Your task to perform on an android device: turn on the 12-hour format for clock Image 0: 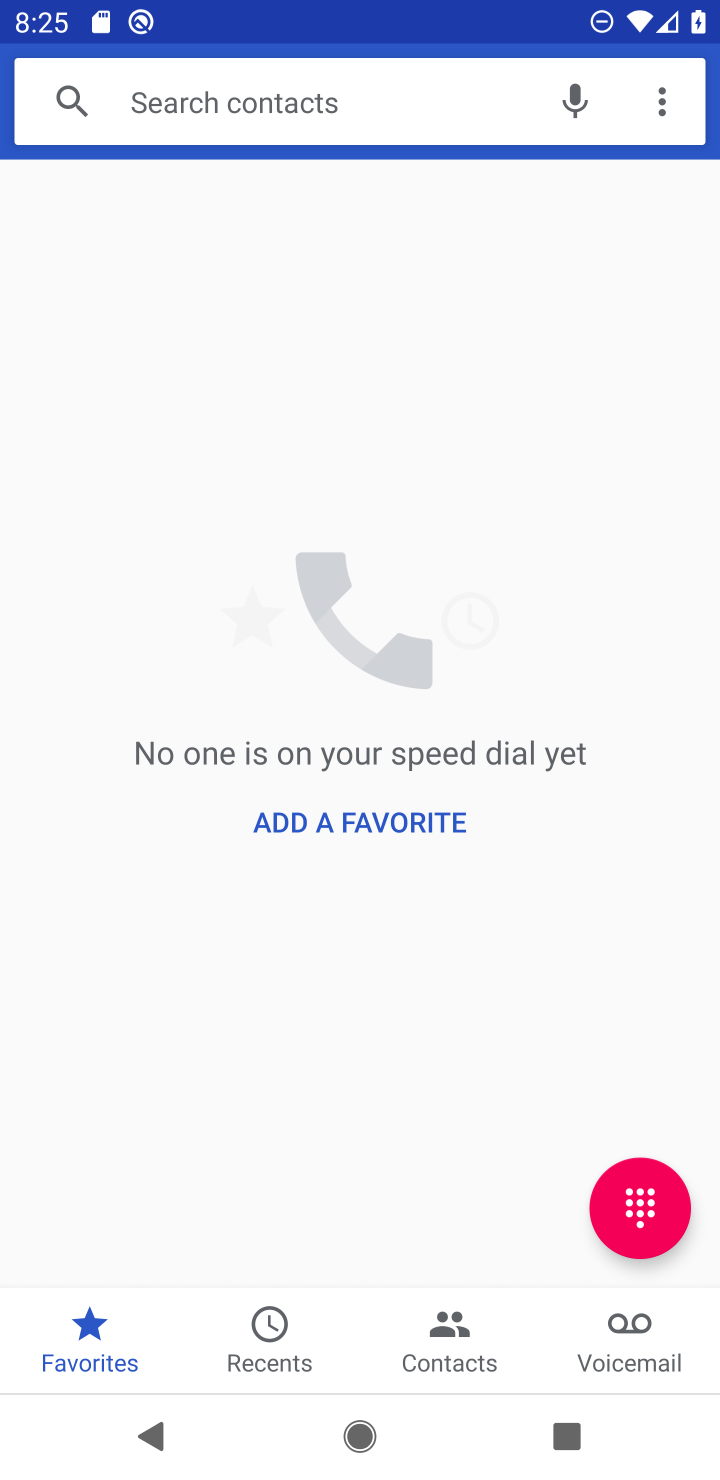
Step 0: press home button
Your task to perform on an android device: turn on the 12-hour format for clock Image 1: 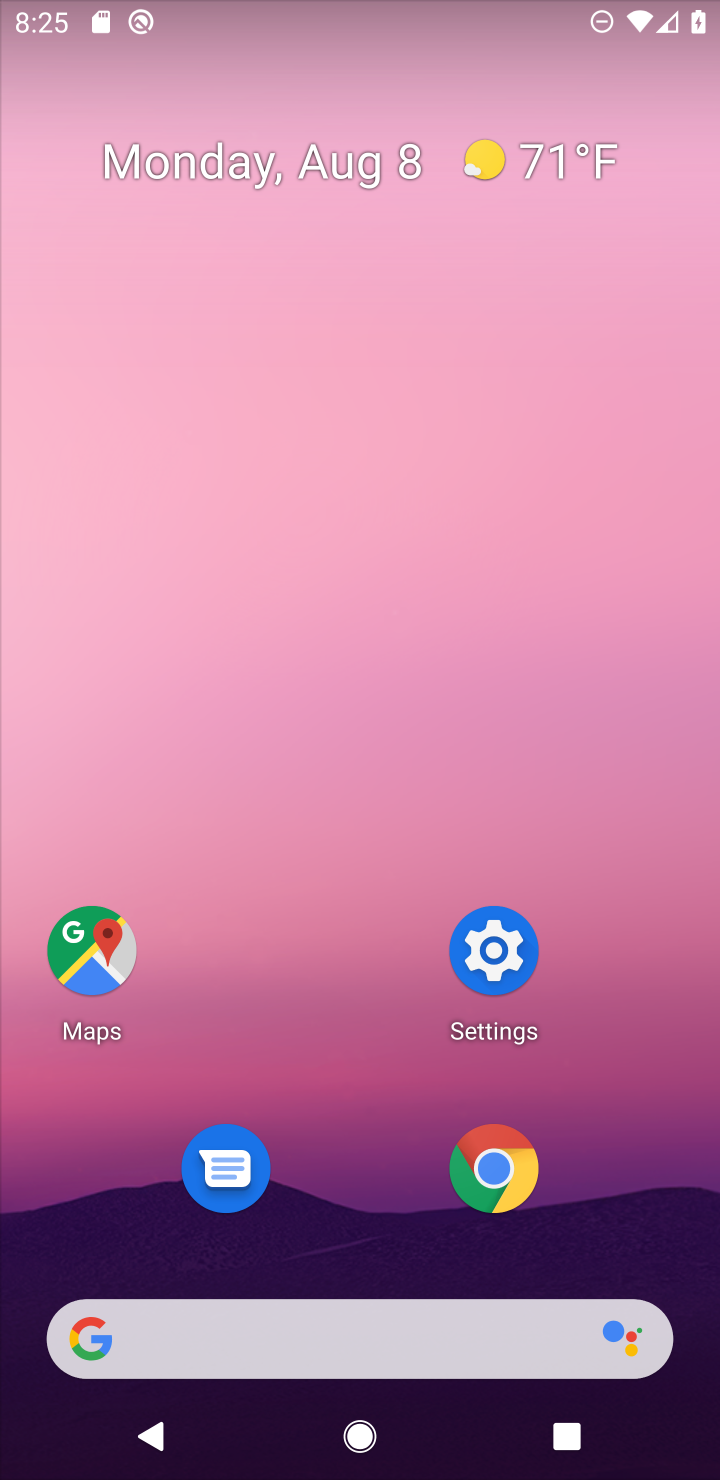
Step 1: drag from (388, 1316) to (560, 353)
Your task to perform on an android device: turn on the 12-hour format for clock Image 2: 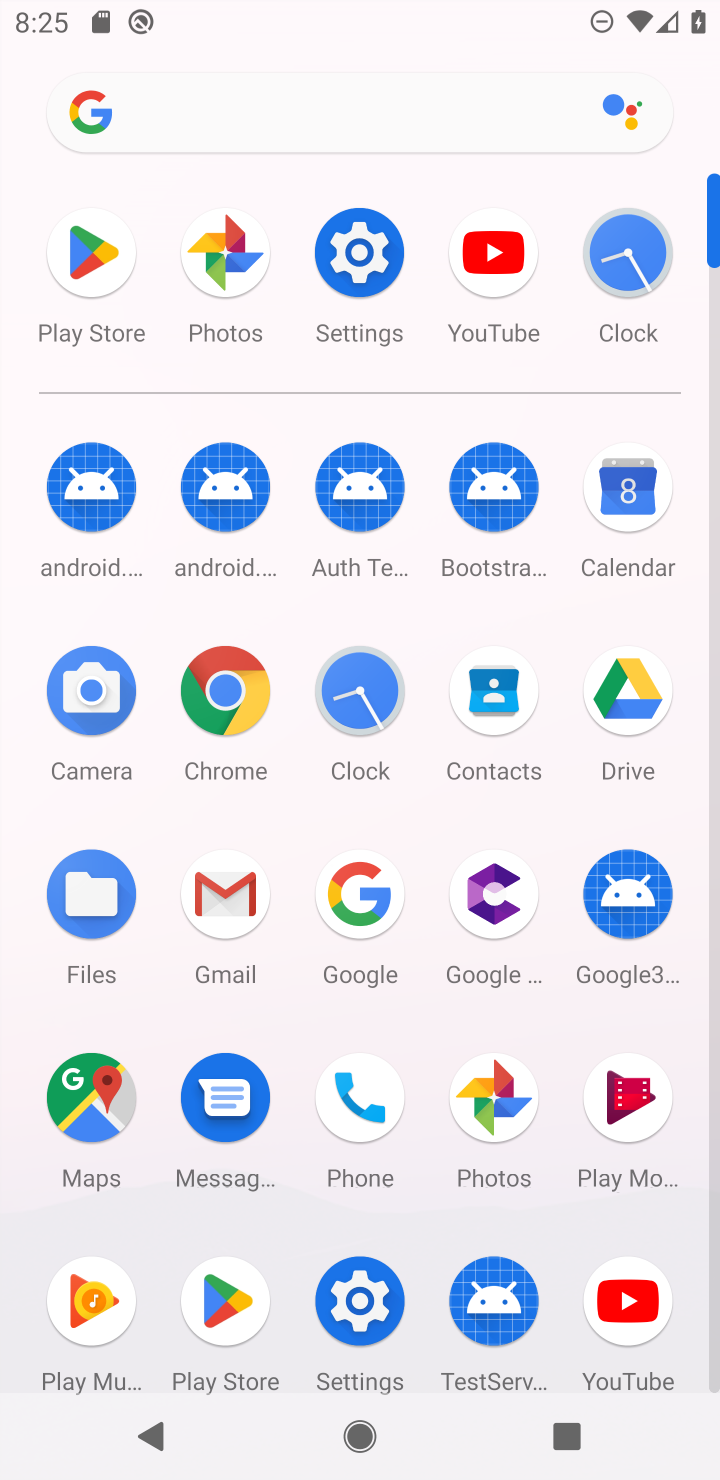
Step 2: click (619, 256)
Your task to perform on an android device: turn on the 12-hour format for clock Image 3: 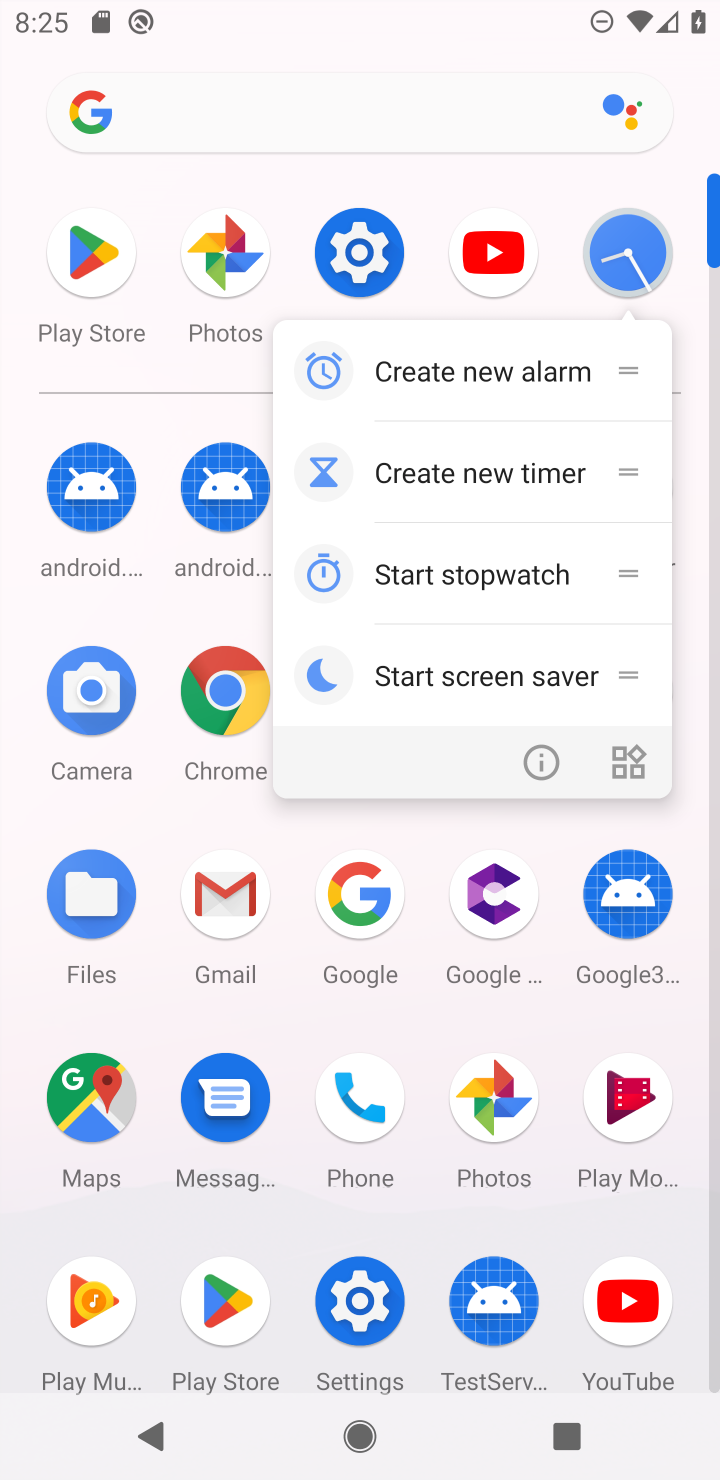
Step 3: click (619, 260)
Your task to perform on an android device: turn on the 12-hour format for clock Image 4: 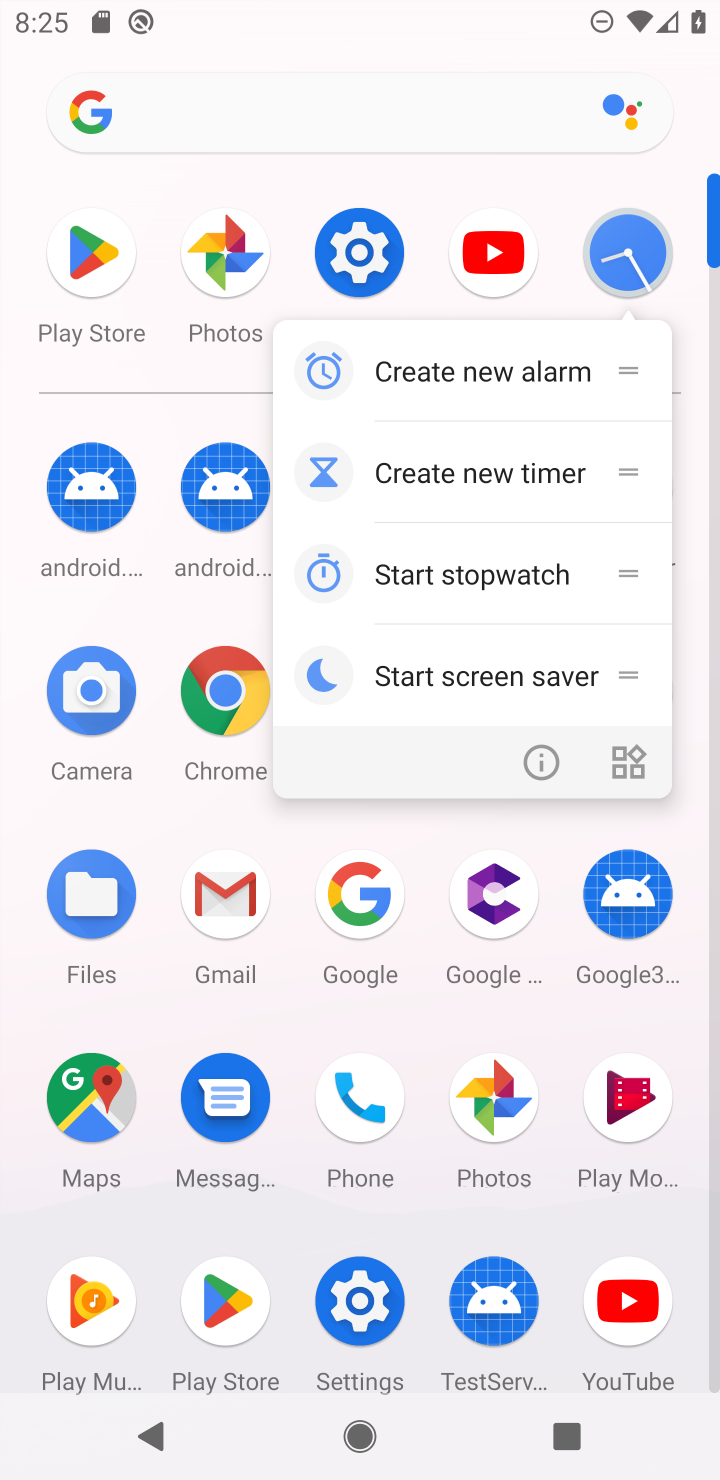
Step 4: drag from (652, 152) to (635, 220)
Your task to perform on an android device: turn on the 12-hour format for clock Image 5: 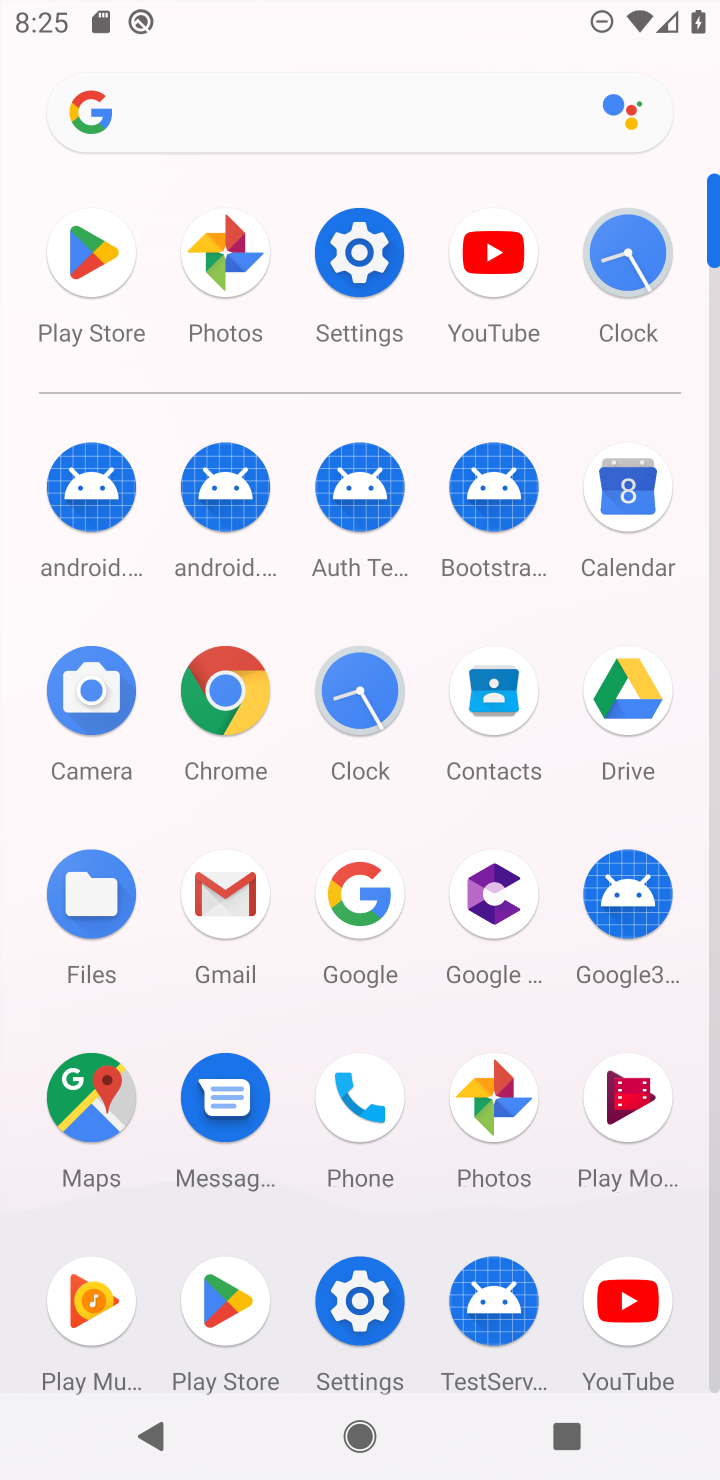
Step 5: click (635, 227)
Your task to perform on an android device: turn on the 12-hour format for clock Image 6: 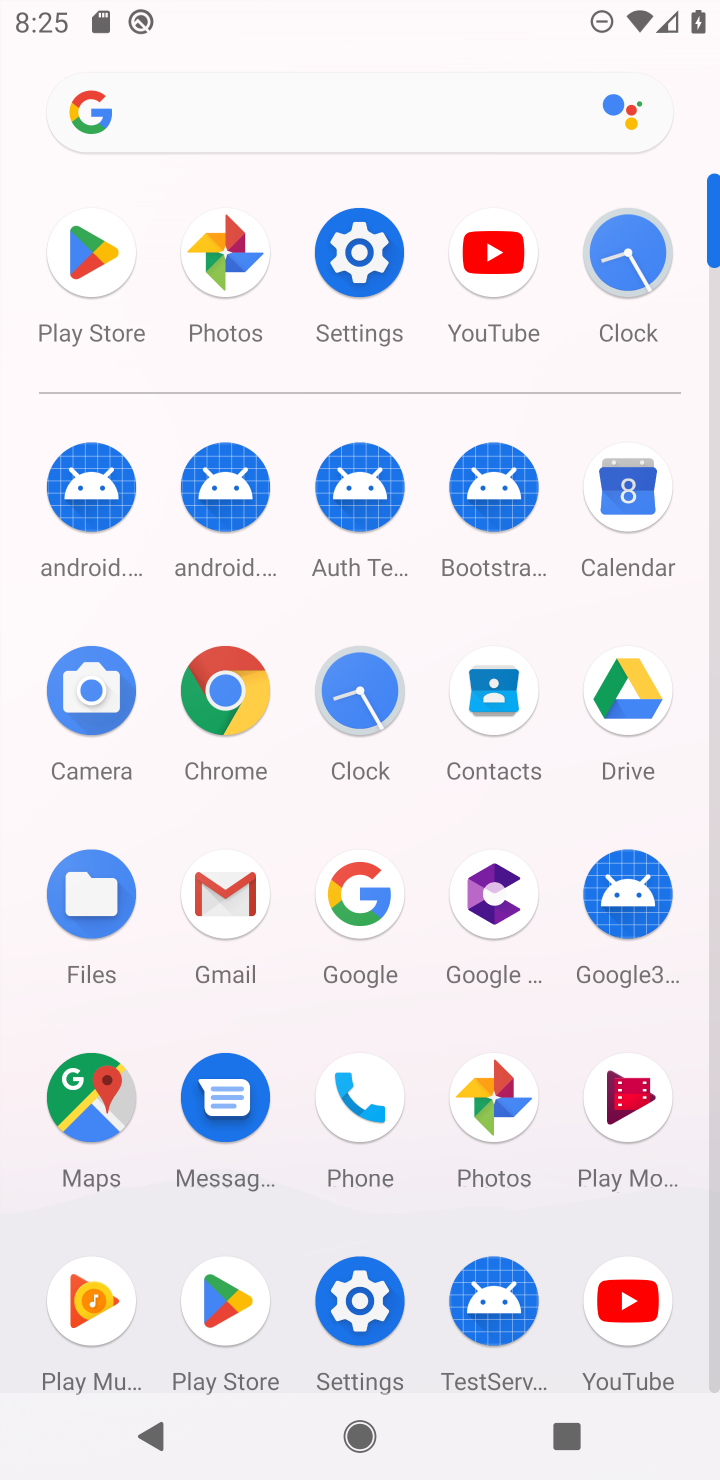
Step 6: click (635, 227)
Your task to perform on an android device: turn on the 12-hour format for clock Image 7: 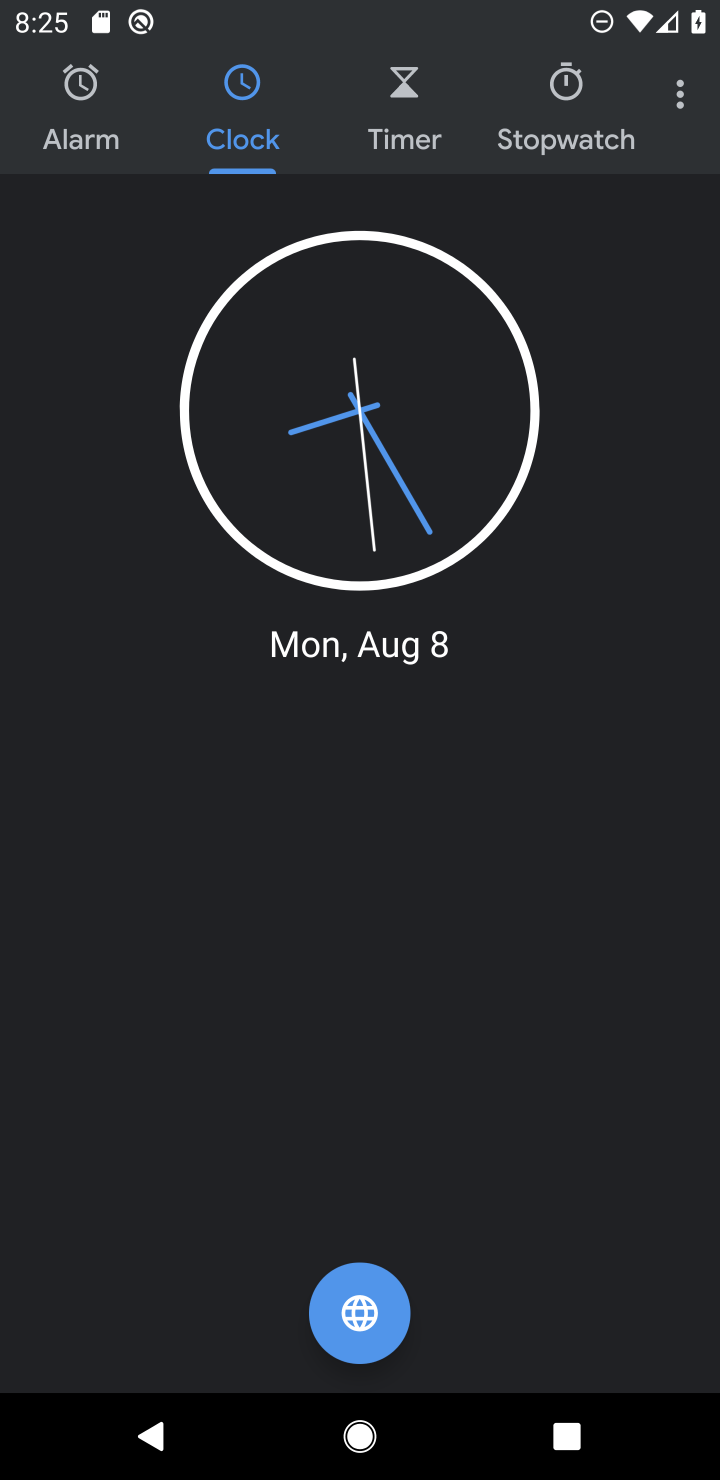
Step 7: click (667, 91)
Your task to perform on an android device: turn on the 12-hour format for clock Image 8: 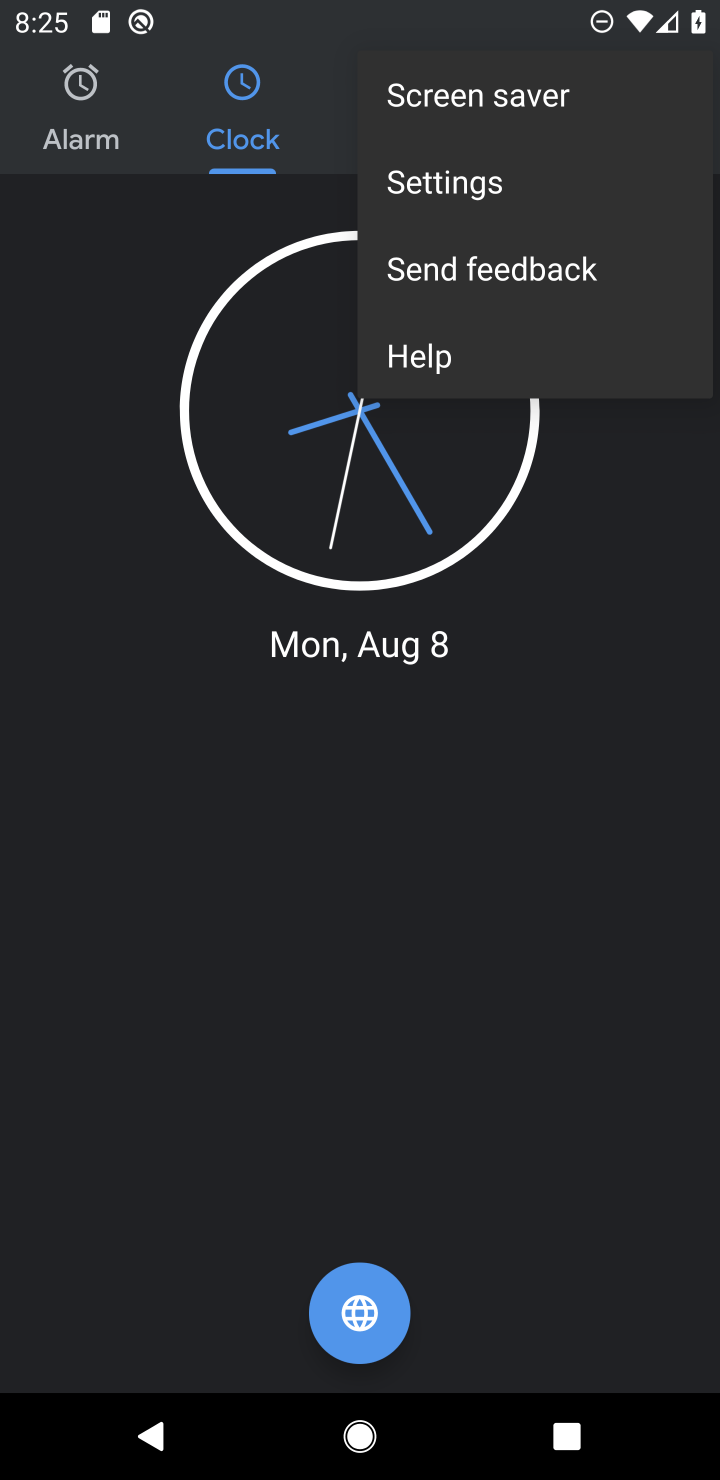
Step 8: click (515, 178)
Your task to perform on an android device: turn on the 12-hour format for clock Image 9: 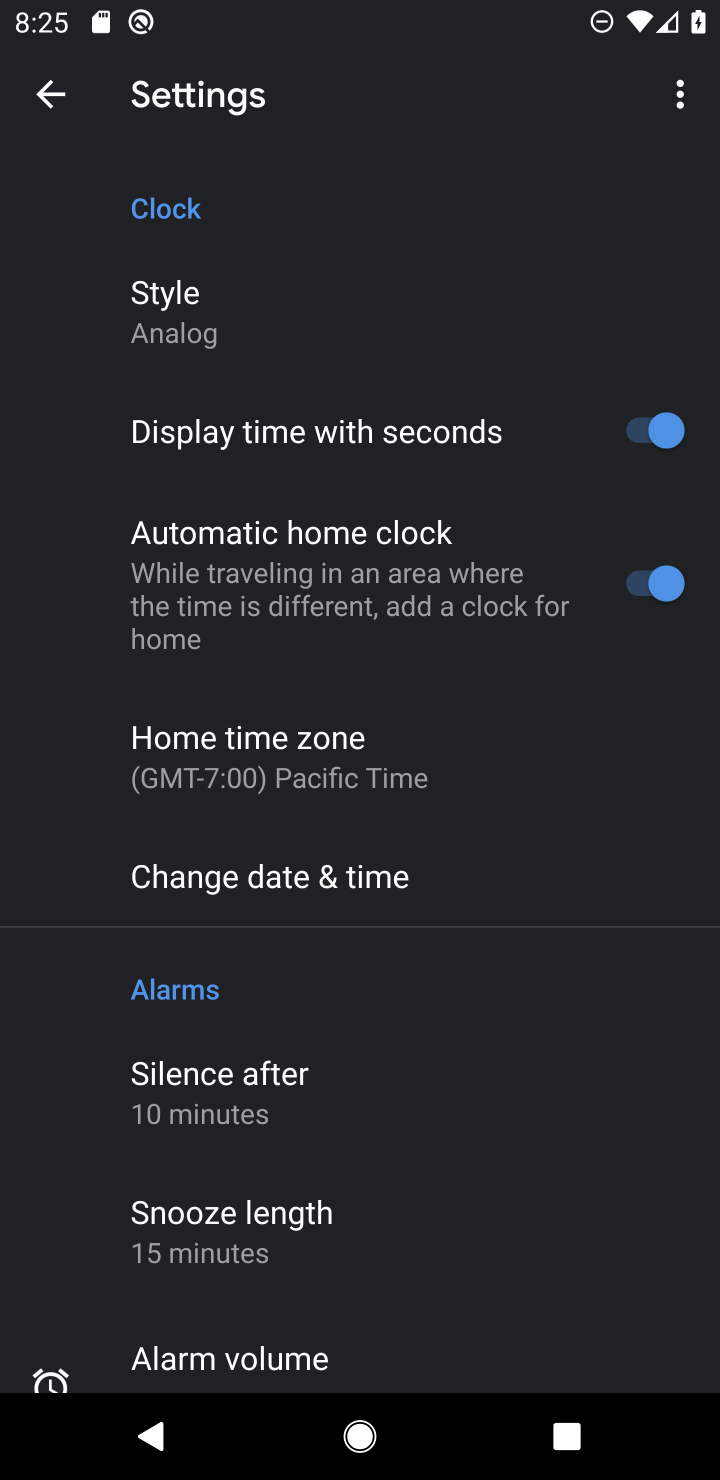
Step 9: click (318, 882)
Your task to perform on an android device: turn on the 12-hour format for clock Image 10: 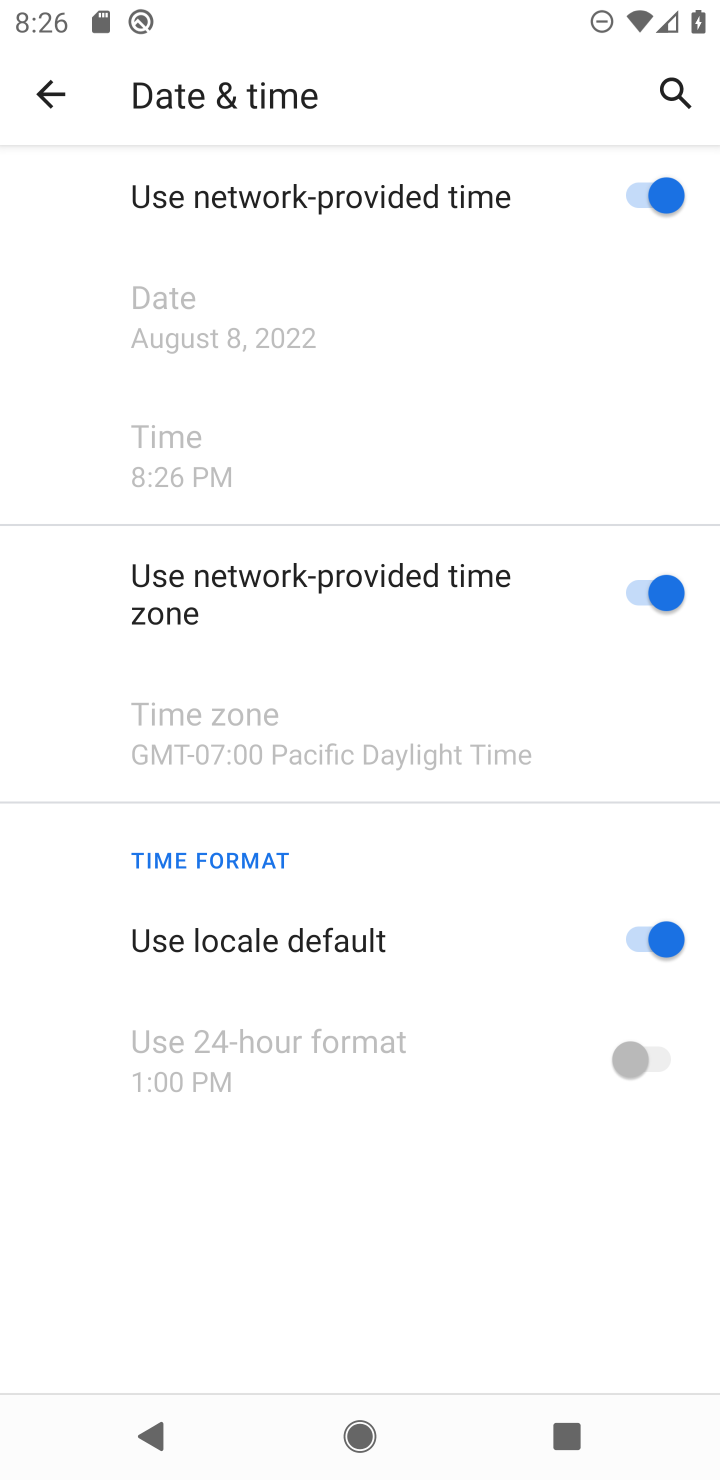
Step 10: task complete